Your task to perform on an android device: Open the Play Movies app and select the watchlist tab. Image 0: 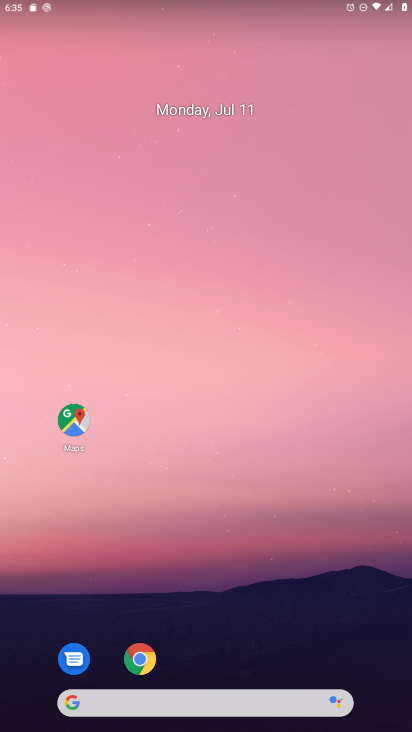
Step 0: drag from (390, 666) to (336, 142)
Your task to perform on an android device: Open the Play Movies app and select the watchlist tab. Image 1: 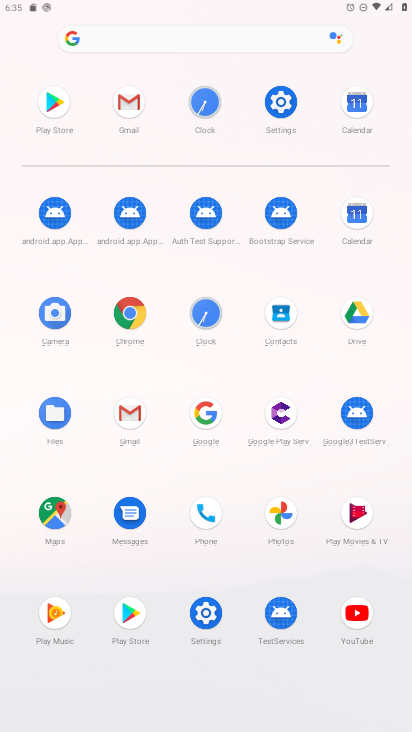
Step 1: click (358, 512)
Your task to perform on an android device: Open the Play Movies app and select the watchlist tab. Image 2: 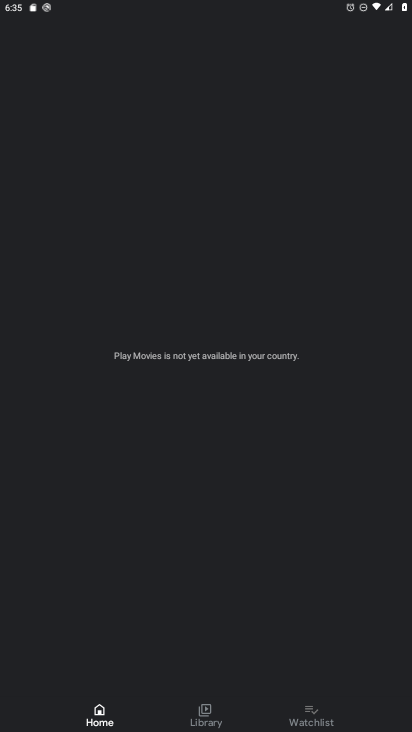
Step 2: click (309, 716)
Your task to perform on an android device: Open the Play Movies app and select the watchlist tab. Image 3: 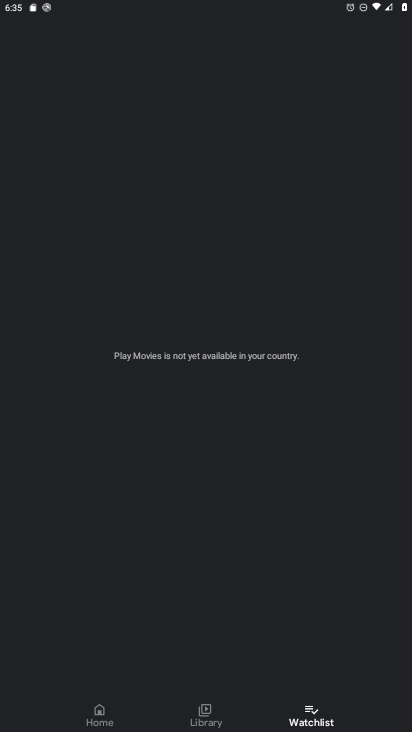
Step 3: task complete